Your task to perform on an android device: toggle airplane mode Image 0: 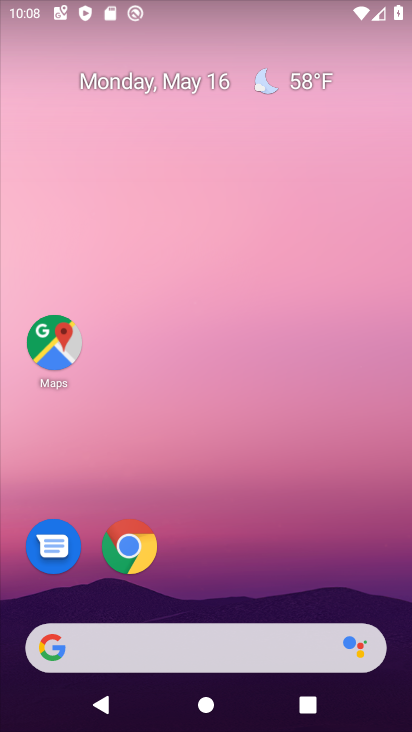
Step 0: drag from (233, 563) to (203, 251)
Your task to perform on an android device: toggle airplane mode Image 1: 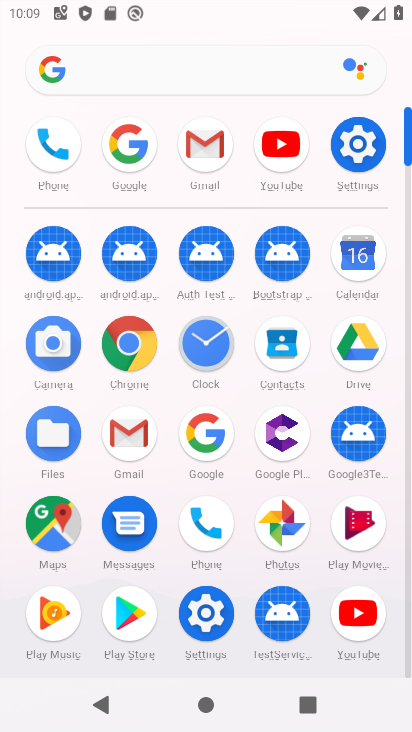
Step 1: click (363, 143)
Your task to perform on an android device: toggle airplane mode Image 2: 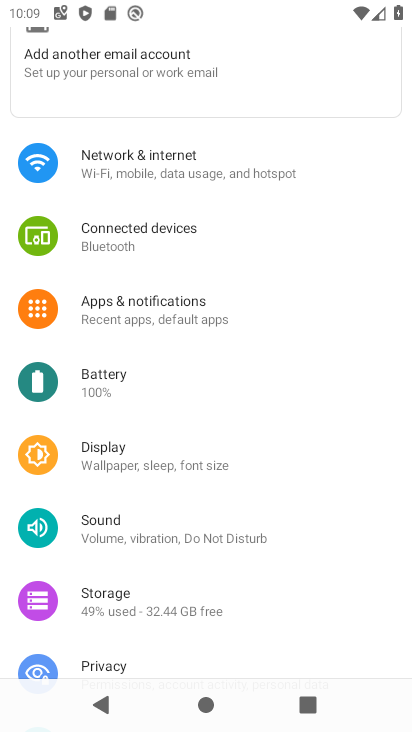
Step 2: click (197, 163)
Your task to perform on an android device: toggle airplane mode Image 3: 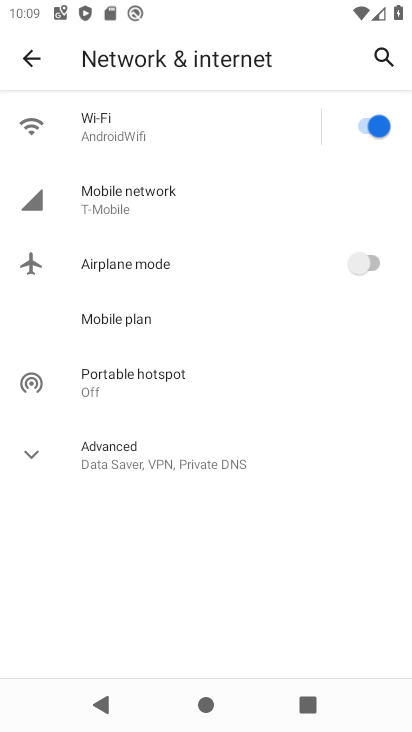
Step 3: click (357, 263)
Your task to perform on an android device: toggle airplane mode Image 4: 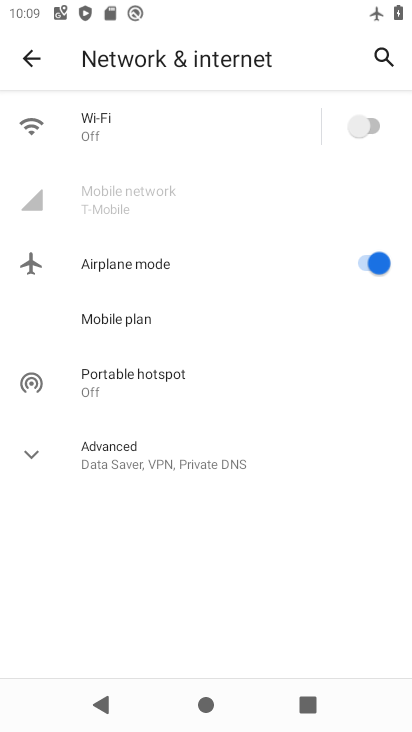
Step 4: task complete